Your task to perform on an android device: snooze an email in the gmail app Image 0: 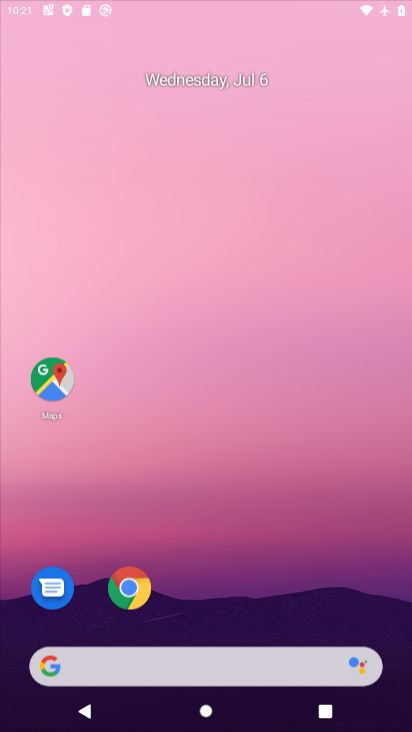
Step 0: click (207, 250)
Your task to perform on an android device: snooze an email in the gmail app Image 1: 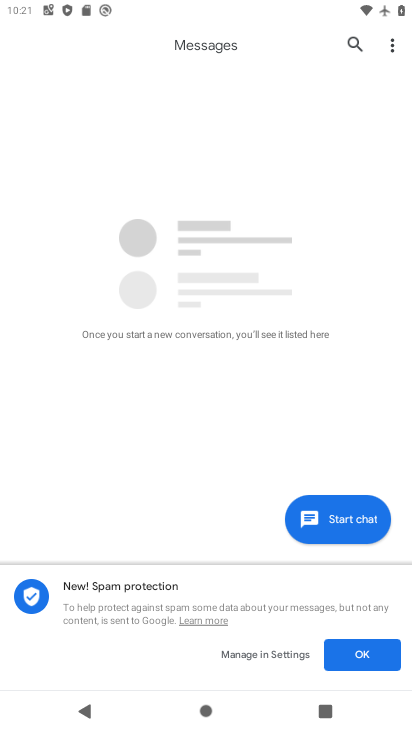
Step 1: press home button
Your task to perform on an android device: snooze an email in the gmail app Image 2: 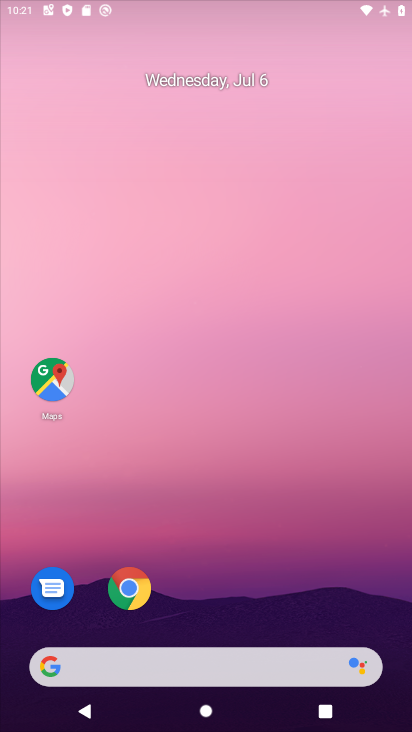
Step 2: drag from (158, 631) to (184, 170)
Your task to perform on an android device: snooze an email in the gmail app Image 3: 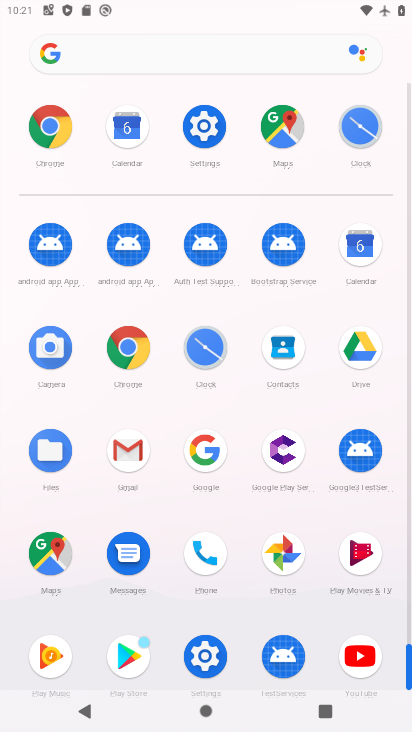
Step 3: click (120, 452)
Your task to perform on an android device: snooze an email in the gmail app Image 4: 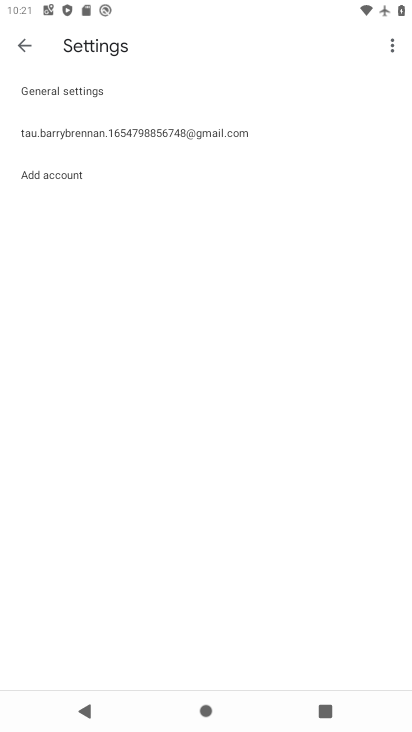
Step 4: click (21, 41)
Your task to perform on an android device: snooze an email in the gmail app Image 5: 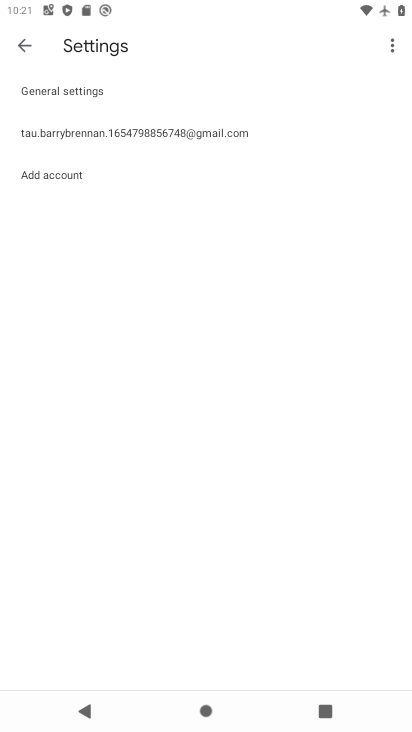
Step 5: click (4, 35)
Your task to perform on an android device: snooze an email in the gmail app Image 6: 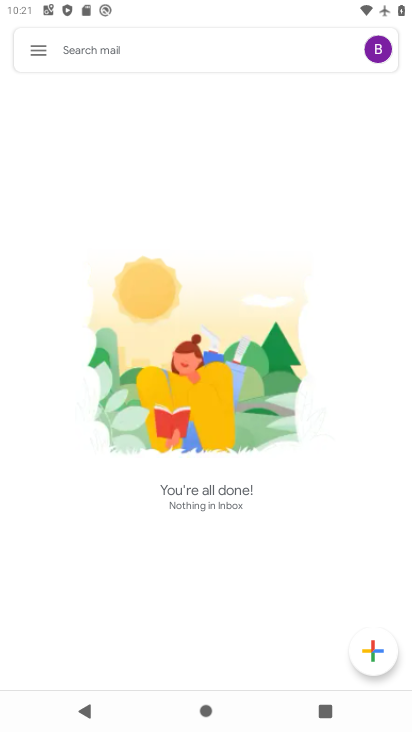
Step 6: click (36, 43)
Your task to perform on an android device: snooze an email in the gmail app Image 7: 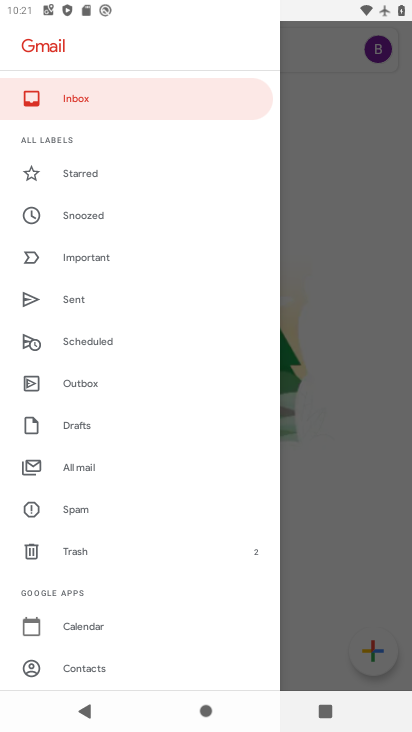
Step 7: click (90, 219)
Your task to perform on an android device: snooze an email in the gmail app Image 8: 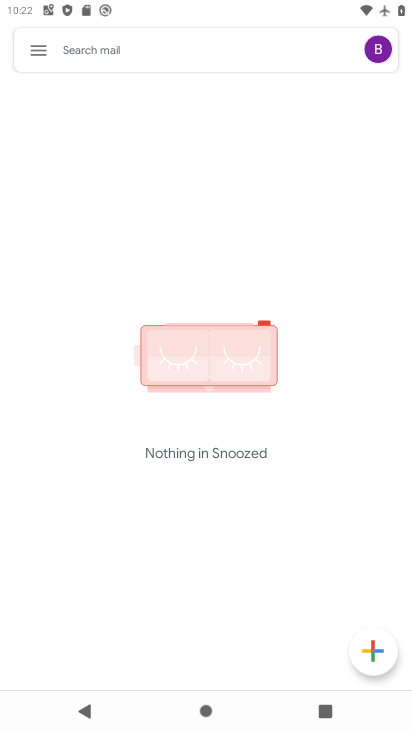
Step 8: task complete